Your task to perform on an android device: open the mobile data screen to see how much data has been used Image 0: 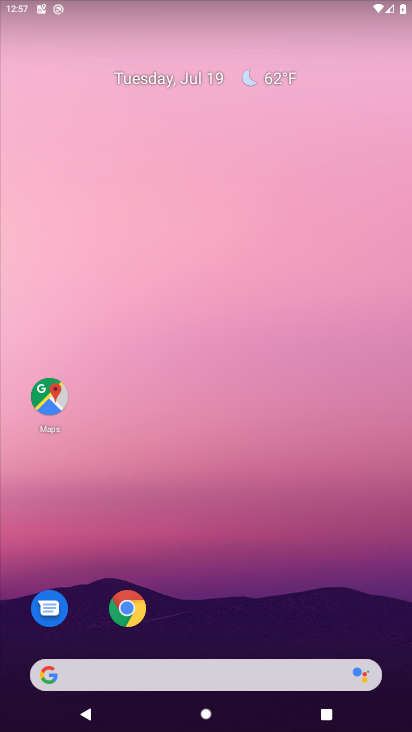
Step 0: drag from (232, 638) to (239, 1)
Your task to perform on an android device: open the mobile data screen to see how much data has been used Image 1: 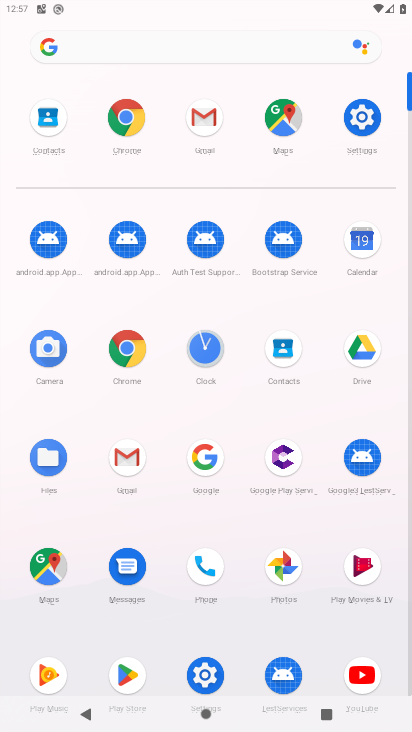
Step 1: click (206, 662)
Your task to perform on an android device: open the mobile data screen to see how much data has been used Image 2: 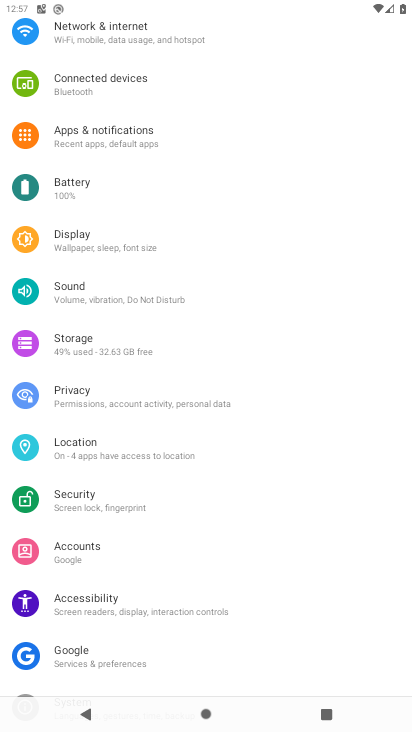
Step 2: click (106, 34)
Your task to perform on an android device: open the mobile data screen to see how much data has been used Image 3: 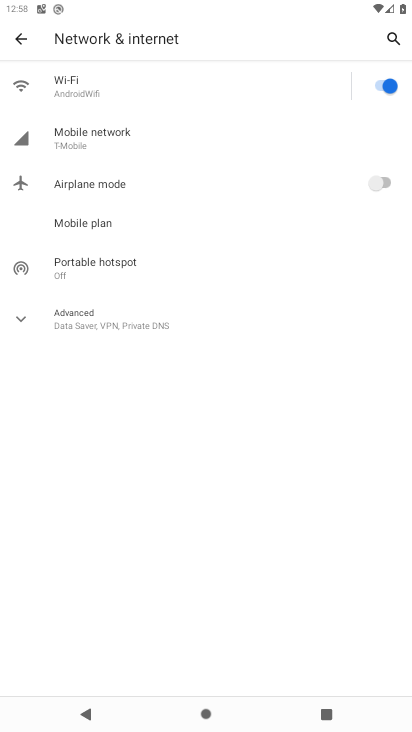
Step 3: click (116, 137)
Your task to perform on an android device: open the mobile data screen to see how much data has been used Image 4: 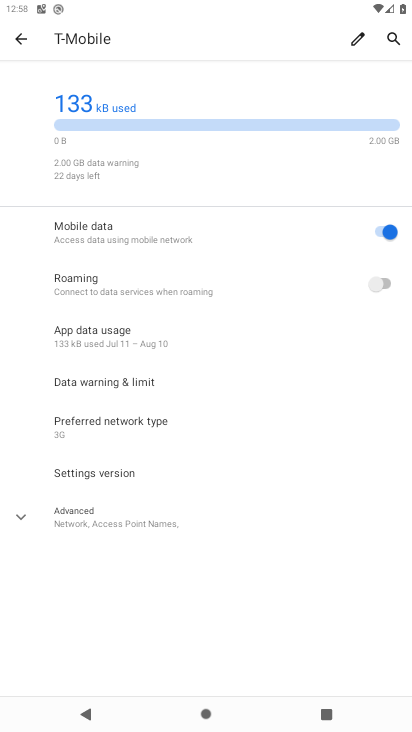
Step 4: click (118, 325)
Your task to perform on an android device: open the mobile data screen to see how much data has been used Image 5: 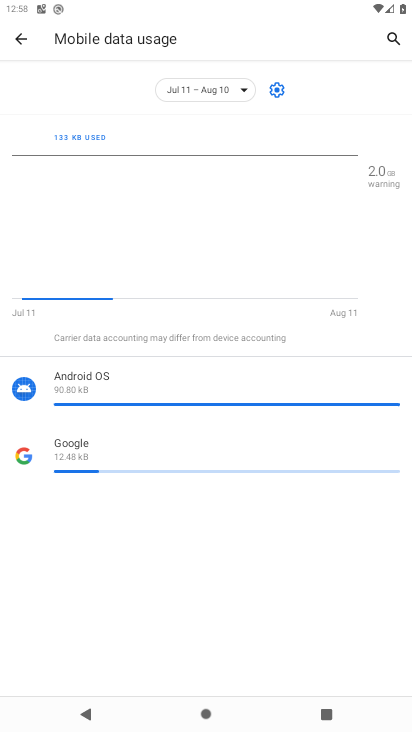
Step 5: task complete